Your task to perform on an android device: Go to display settings Image 0: 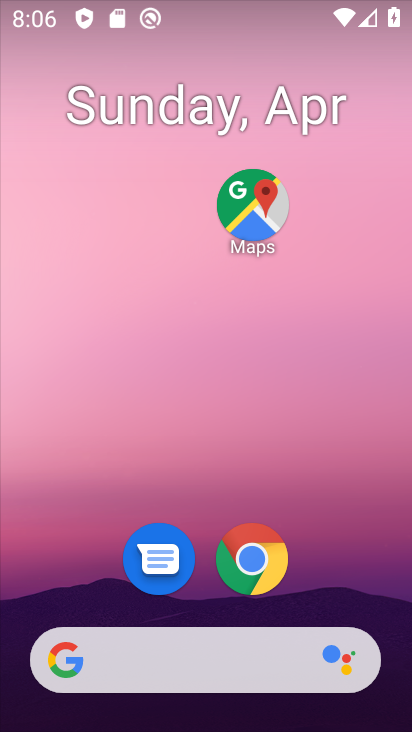
Step 0: drag from (34, 566) to (218, 235)
Your task to perform on an android device: Go to display settings Image 1: 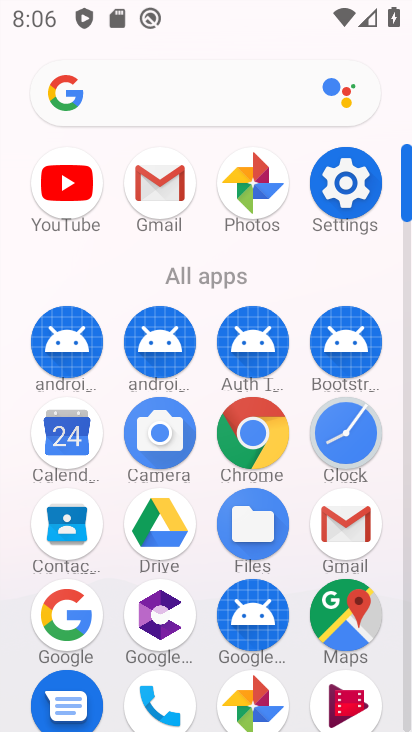
Step 1: click (335, 178)
Your task to perform on an android device: Go to display settings Image 2: 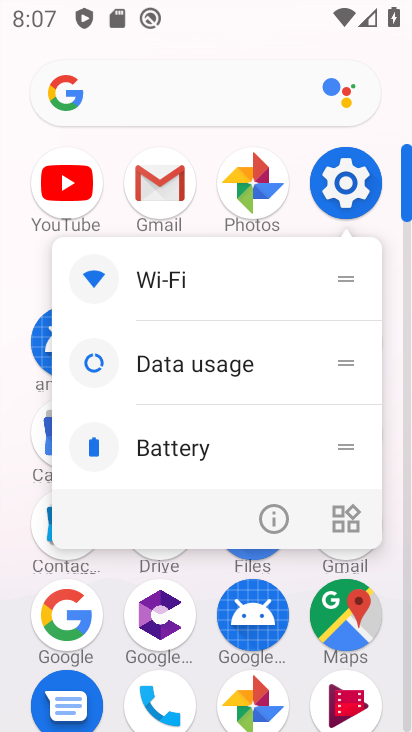
Step 2: click (352, 173)
Your task to perform on an android device: Go to display settings Image 3: 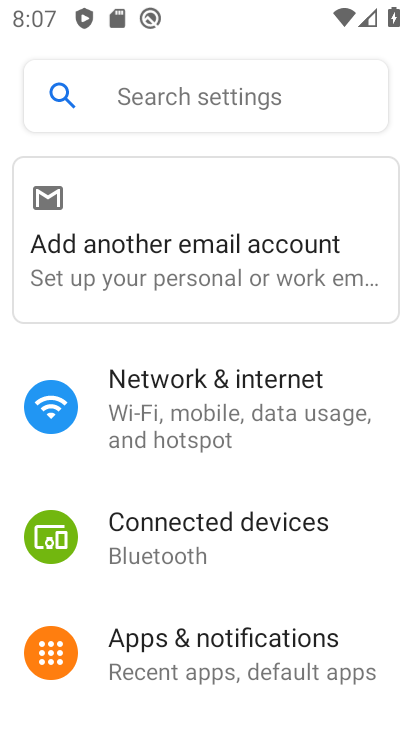
Step 3: drag from (123, 695) to (190, 269)
Your task to perform on an android device: Go to display settings Image 4: 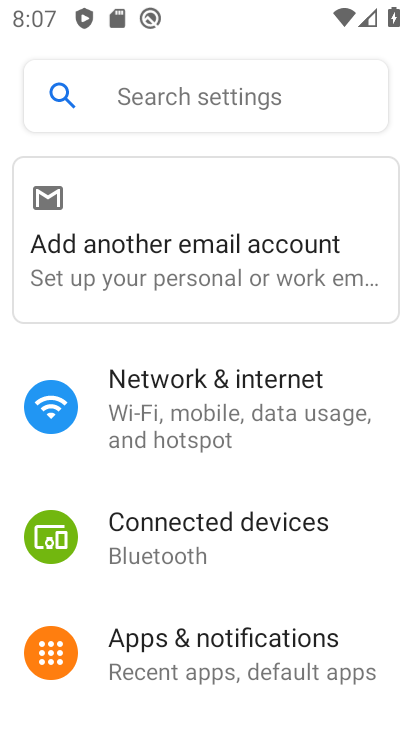
Step 4: drag from (167, 677) to (273, 322)
Your task to perform on an android device: Go to display settings Image 5: 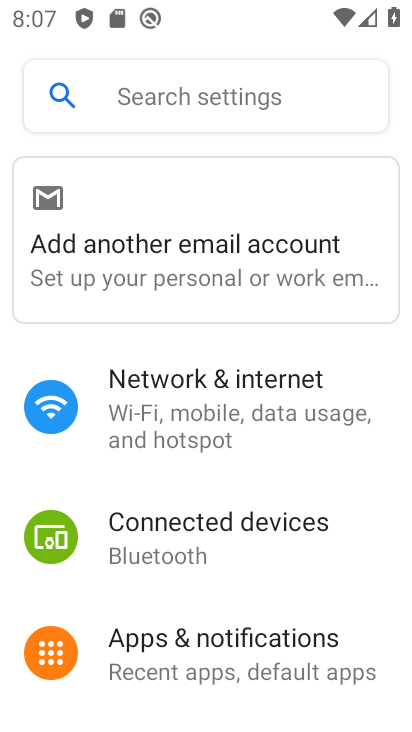
Step 5: drag from (8, 663) to (280, 230)
Your task to perform on an android device: Go to display settings Image 6: 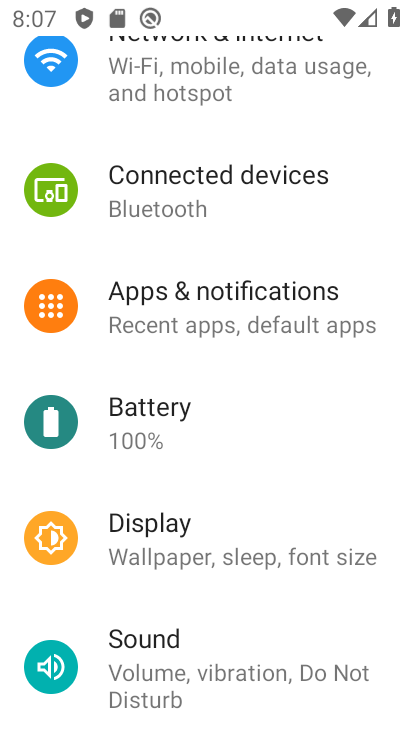
Step 6: click (139, 549)
Your task to perform on an android device: Go to display settings Image 7: 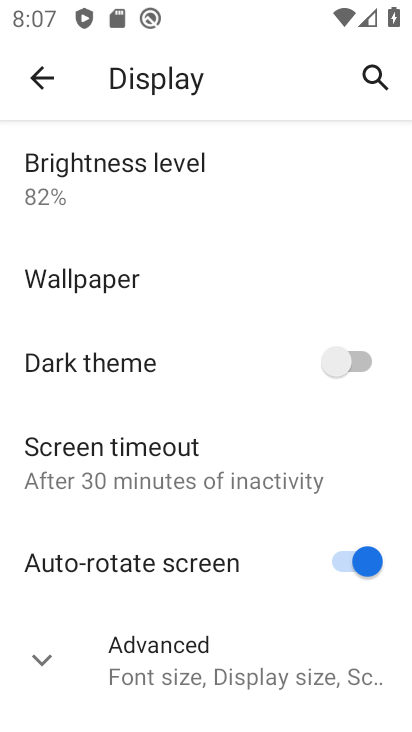
Step 7: drag from (149, 653) to (205, 241)
Your task to perform on an android device: Go to display settings Image 8: 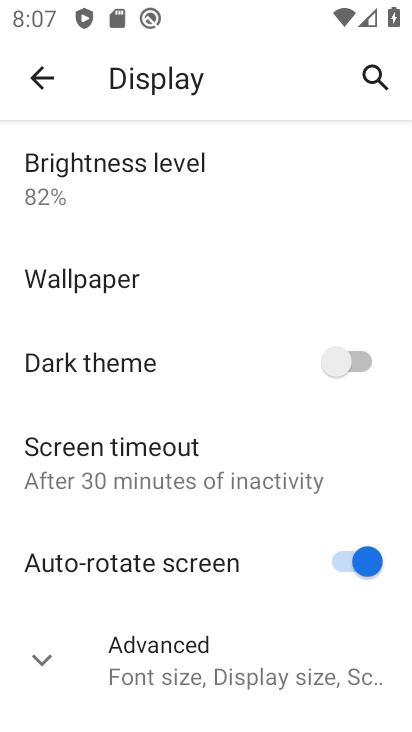
Step 8: drag from (48, 684) to (163, 319)
Your task to perform on an android device: Go to display settings Image 9: 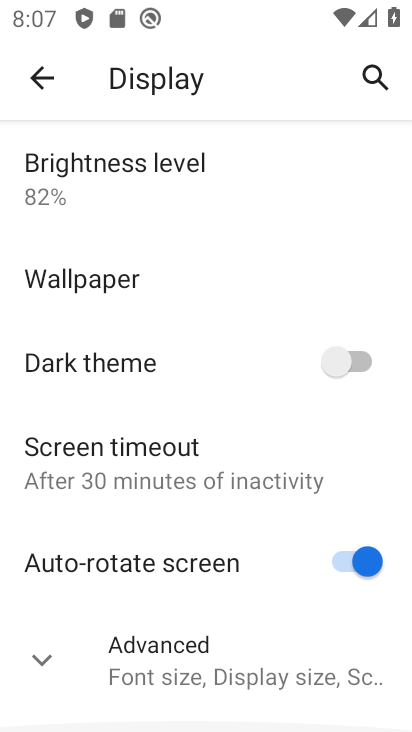
Step 9: click (88, 662)
Your task to perform on an android device: Go to display settings Image 10: 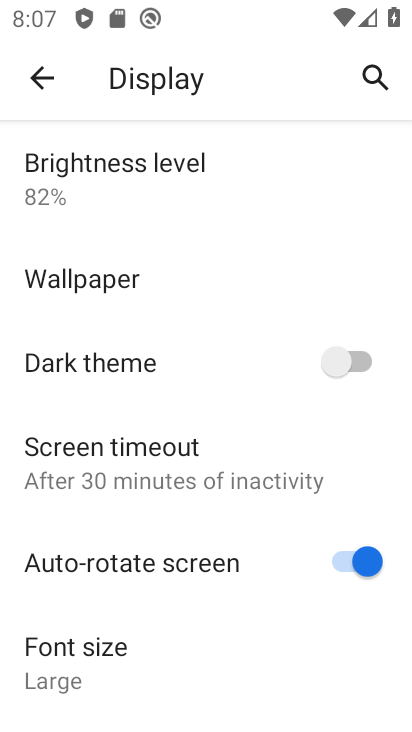
Step 10: task complete